Your task to perform on an android device: delete the emails in spam in the gmail app Image 0: 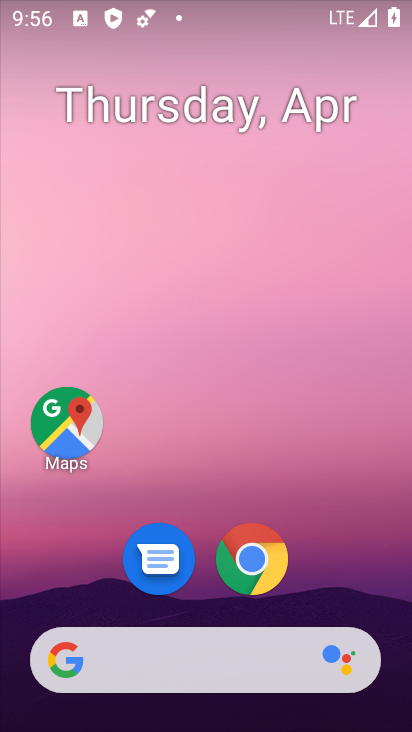
Step 0: click (236, 228)
Your task to perform on an android device: delete the emails in spam in the gmail app Image 1: 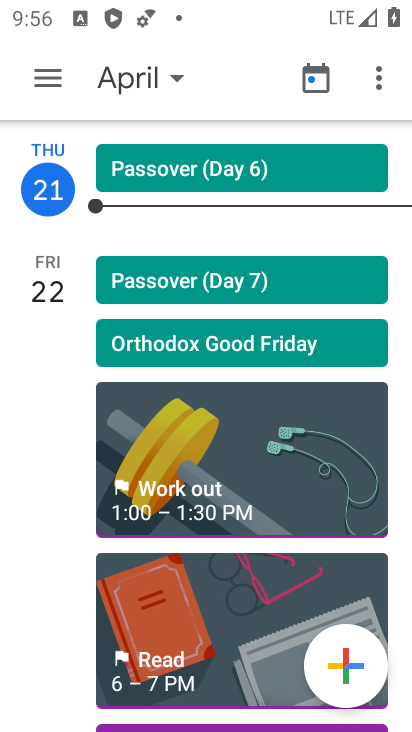
Step 1: press home button
Your task to perform on an android device: delete the emails in spam in the gmail app Image 2: 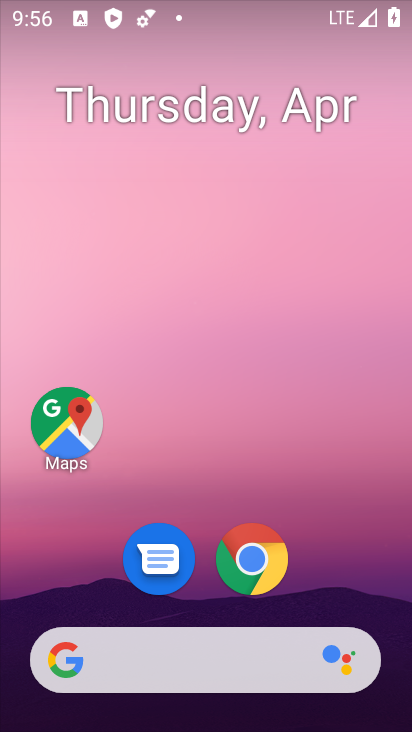
Step 2: drag from (179, 726) to (143, 230)
Your task to perform on an android device: delete the emails in spam in the gmail app Image 3: 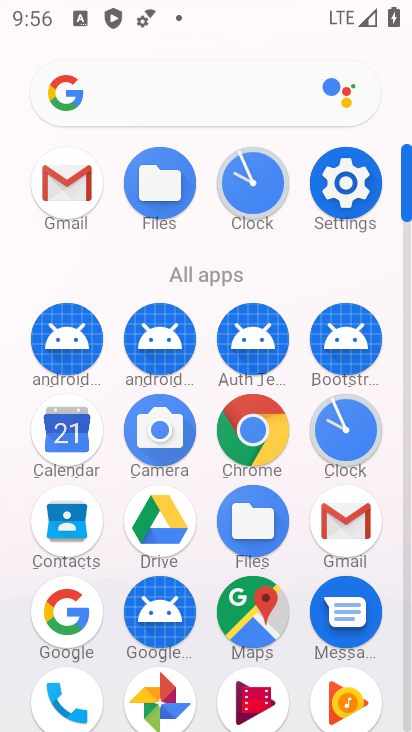
Step 3: click (65, 211)
Your task to perform on an android device: delete the emails in spam in the gmail app Image 4: 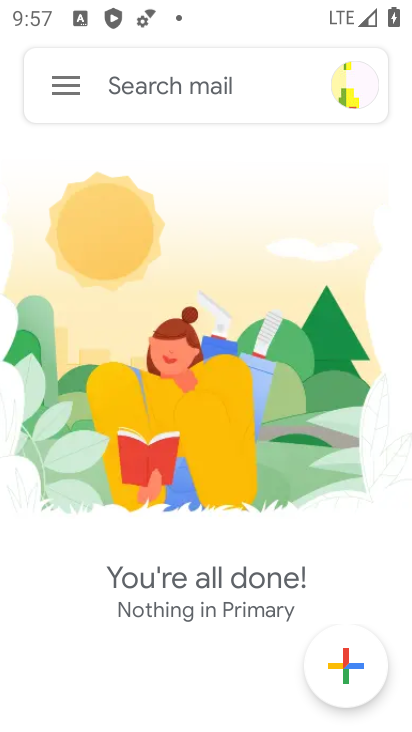
Step 4: click (58, 98)
Your task to perform on an android device: delete the emails in spam in the gmail app Image 5: 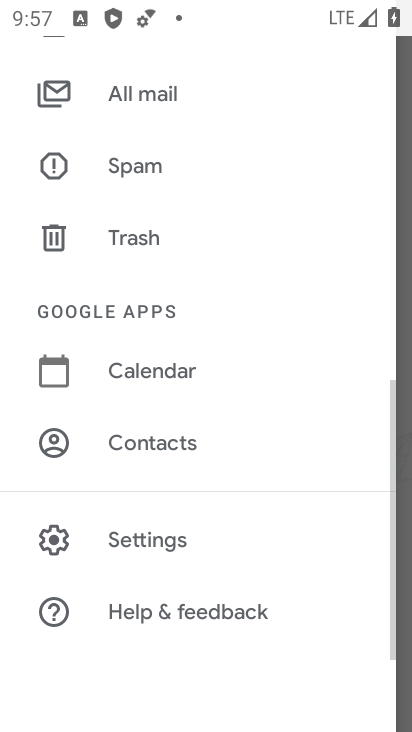
Step 5: click (166, 158)
Your task to perform on an android device: delete the emails in spam in the gmail app Image 6: 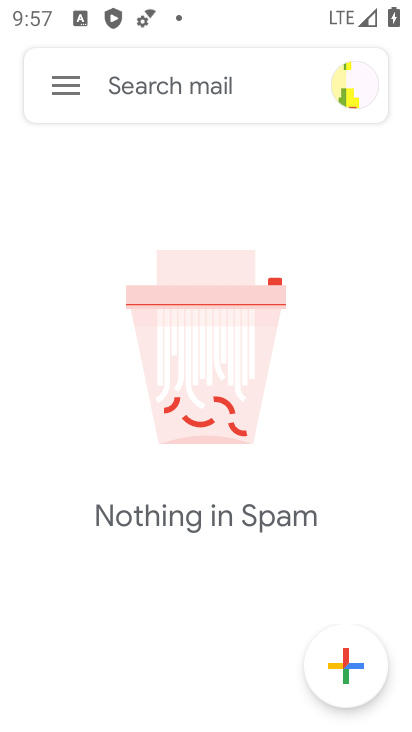
Step 6: task complete